Your task to perform on an android device: see sites visited before in the chrome app Image 0: 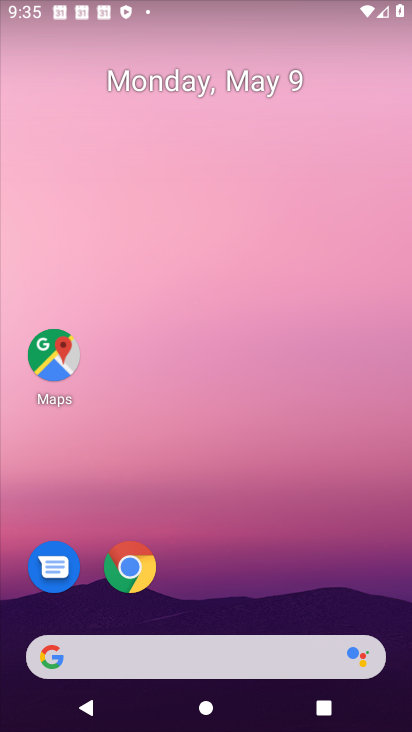
Step 0: click (136, 583)
Your task to perform on an android device: see sites visited before in the chrome app Image 1: 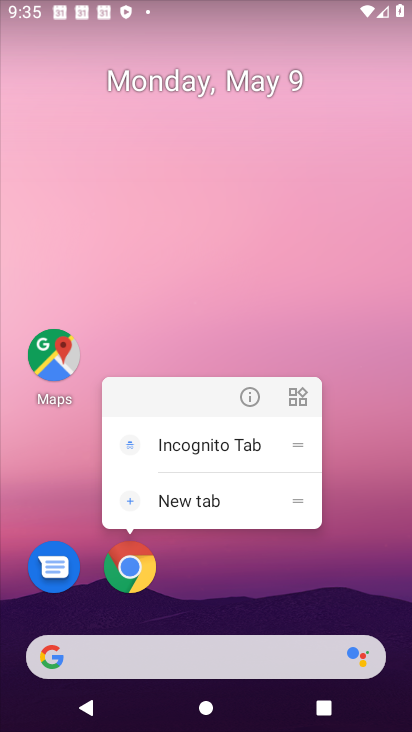
Step 1: click (137, 588)
Your task to perform on an android device: see sites visited before in the chrome app Image 2: 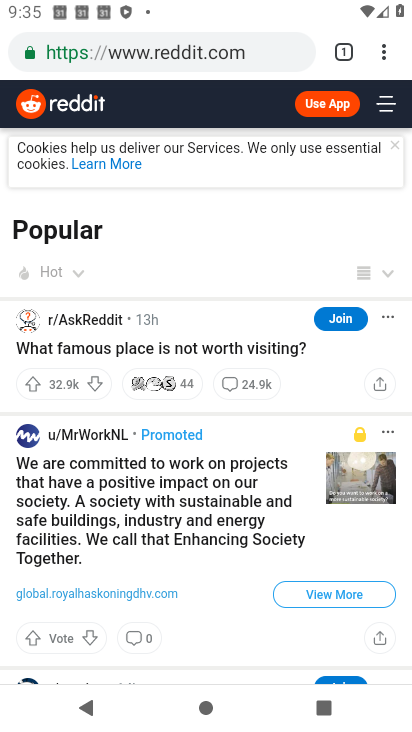
Step 2: click (382, 57)
Your task to perform on an android device: see sites visited before in the chrome app Image 3: 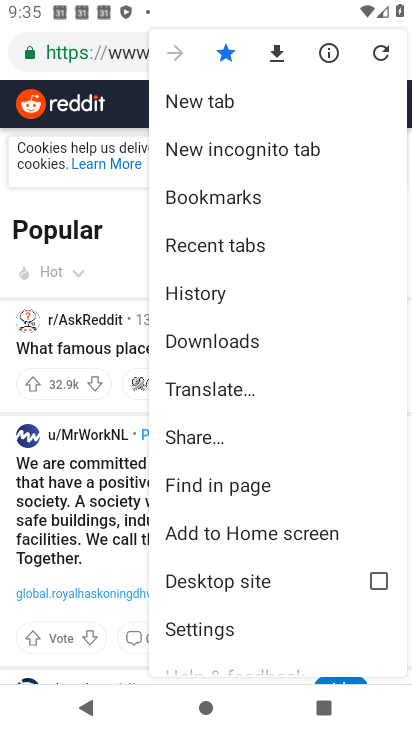
Step 3: click (209, 287)
Your task to perform on an android device: see sites visited before in the chrome app Image 4: 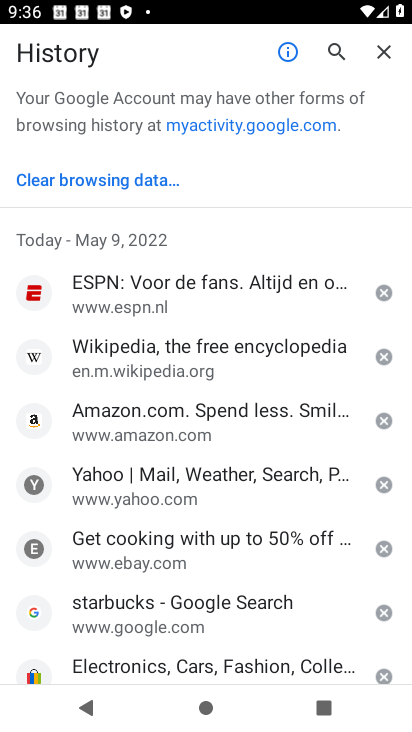
Step 4: task complete